Your task to perform on an android device: change notification settings in the gmail app Image 0: 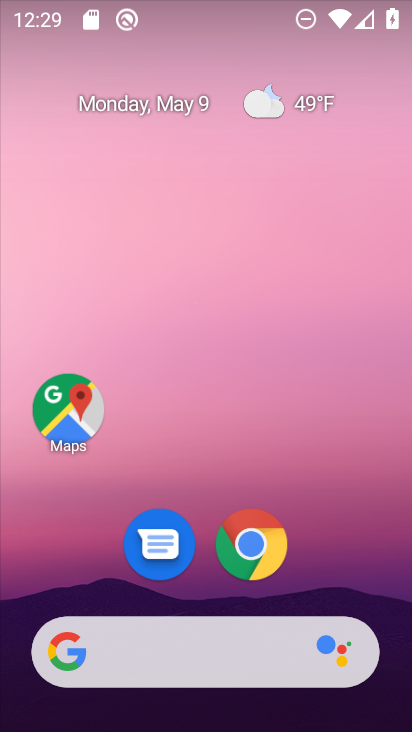
Step 0: click (273, 12)
Your task to perform on an android device: change notification settings in the gmail app Image 1: 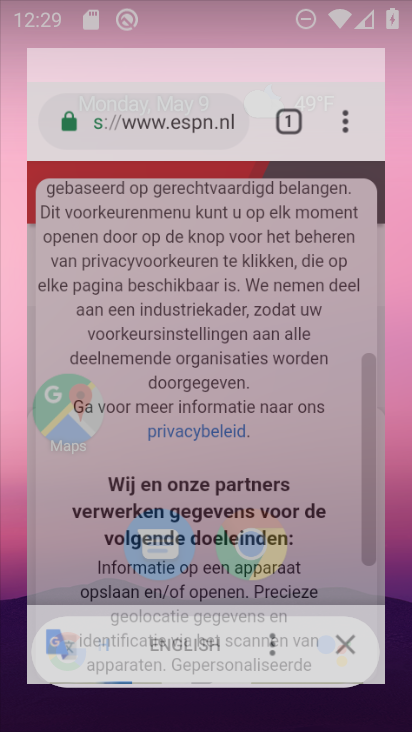
Step 1: drag from (361, 304) to (343, 142)
Your task to perform on an android device: change notification settings in the gmail app Image 2: 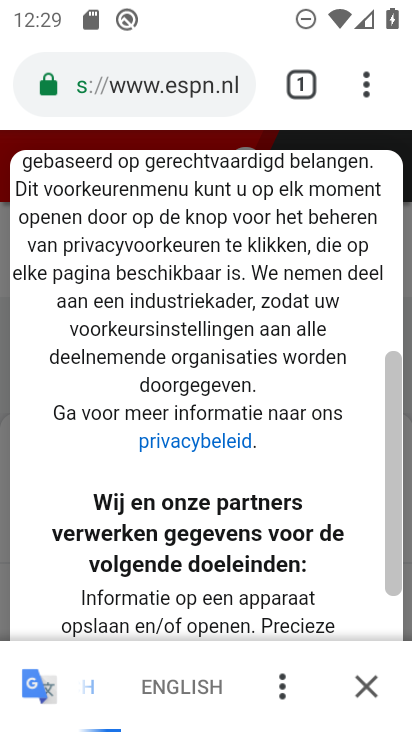
Step 2: press home button
Your task to perform on an android device: change notification settings in the gmail app Image 3: 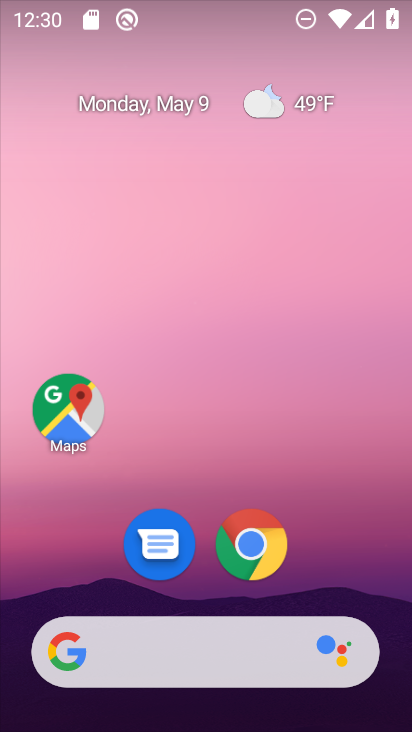
Step 3: drag from (356, 513) to (354, 69)
Your task to perform on an android device: change notification settings in the gmail app Image 4: 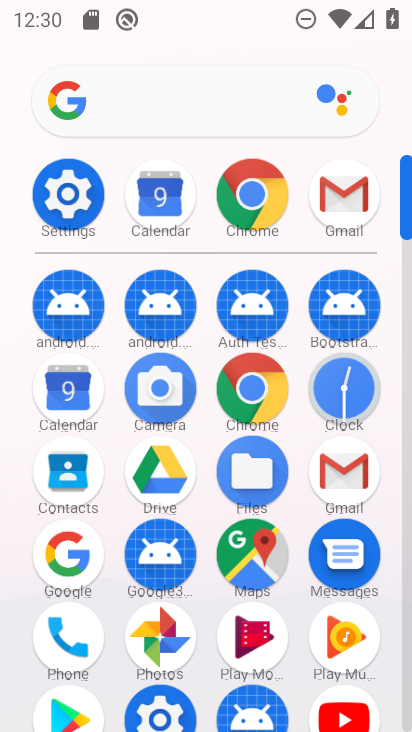
Step 4: click (368, 195)
Your task to perform on an android device: change notification settings in the gmail app Image 5: 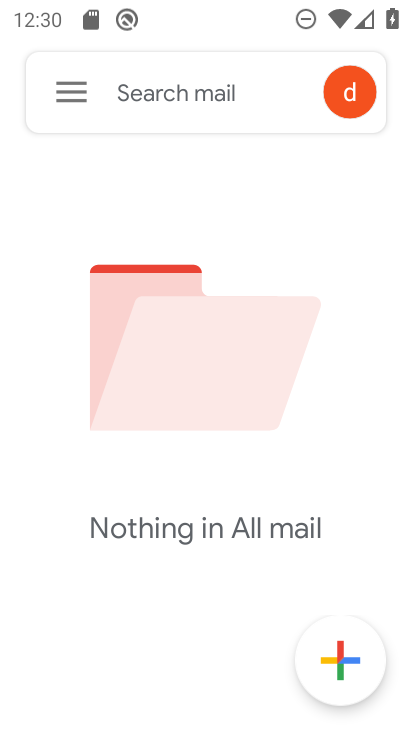
Step 5: click (63, 91)
Your task to perform on an android device: change notification settings in the gmail app Image 6: 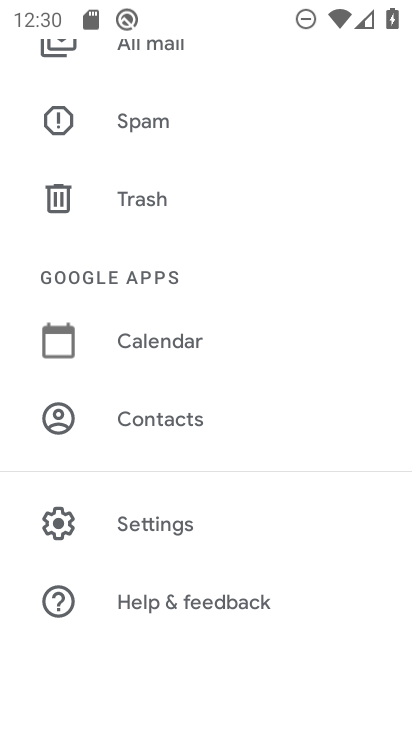
Step 6: click (172, 529)
Your task to perform on an android device: change notification settings in the gmail app Image 7: 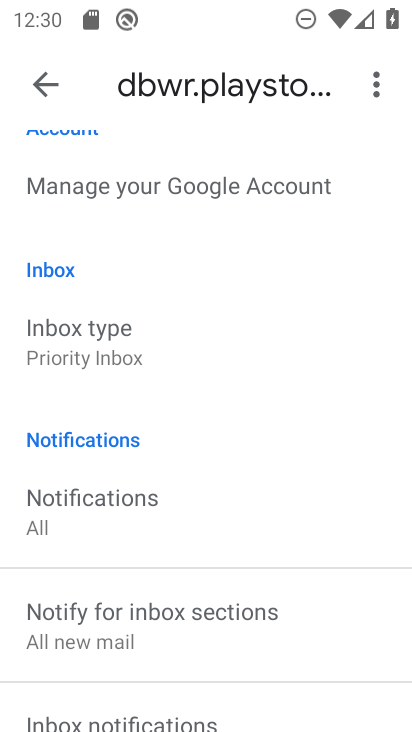
Step 7: click (112, 520)
Your task to perform on an android device: change notification settings in the gmail app Image 8: 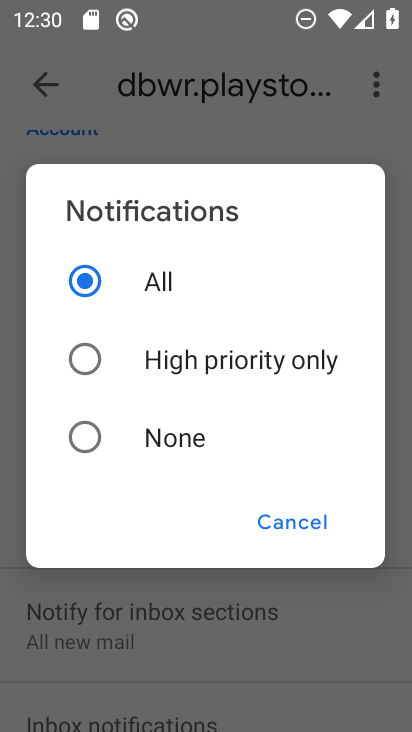
Step 8: click (86, 362)
Your task to perform on an android device: change notification settings in the gmail app Image 9: 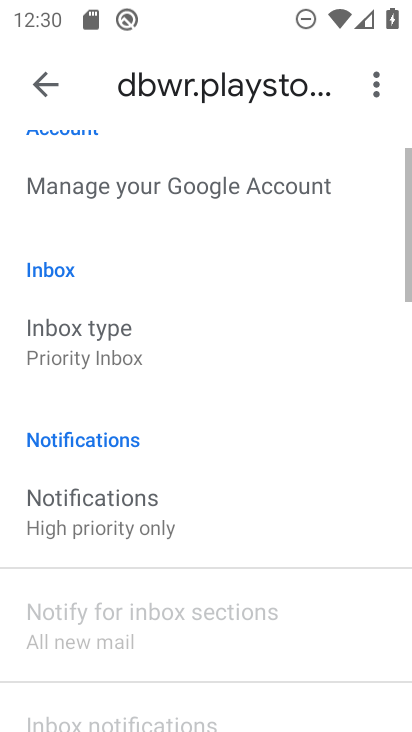
Step 9: task complete